Your task to perform on an android device: turn off location Image 0: 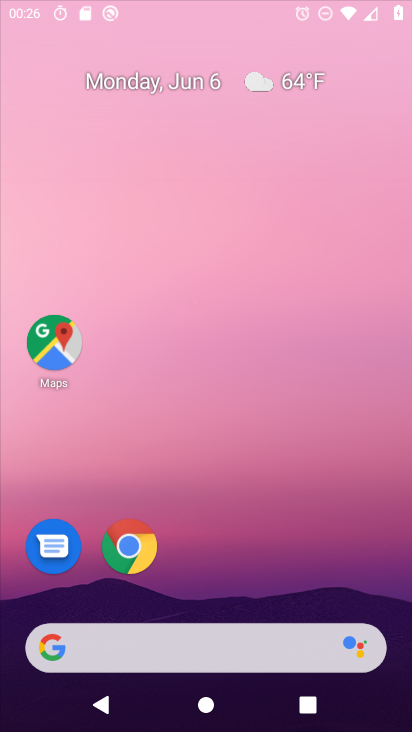
Step 0: drag from (211, 584) to (230, 149)
Your task to perform on an android device: turn off location Image 1: 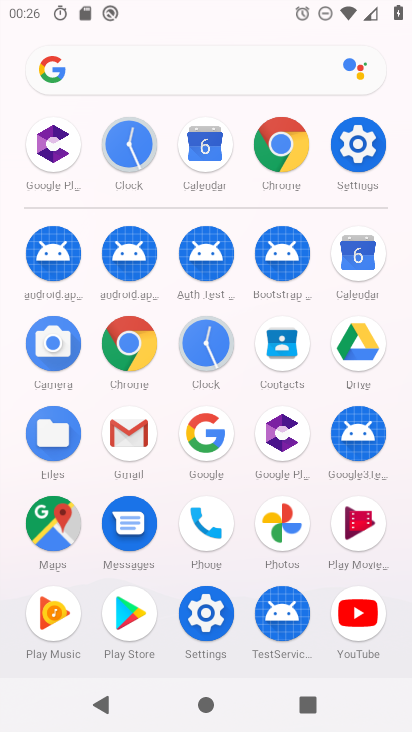
Step 1: click (363, 144)
Your task to perform on an android device: turn off location Image 2: 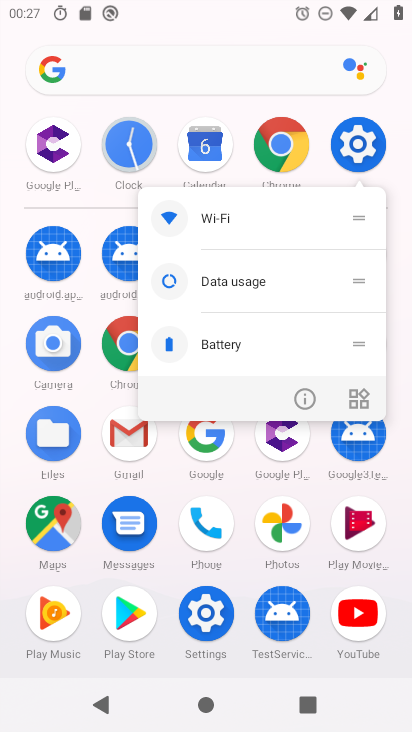
Step 2: click (309, 397)
Your task to perform on an android device: turn off location Image 3: 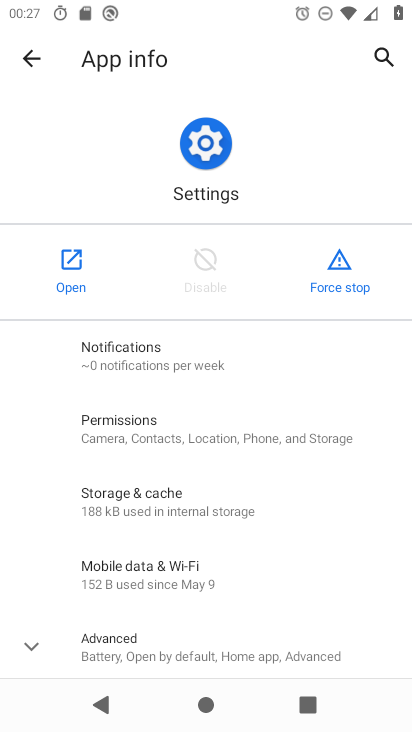
Step 3: click (71, 253)
Your task to perform on an android device: turn off location Image 4: 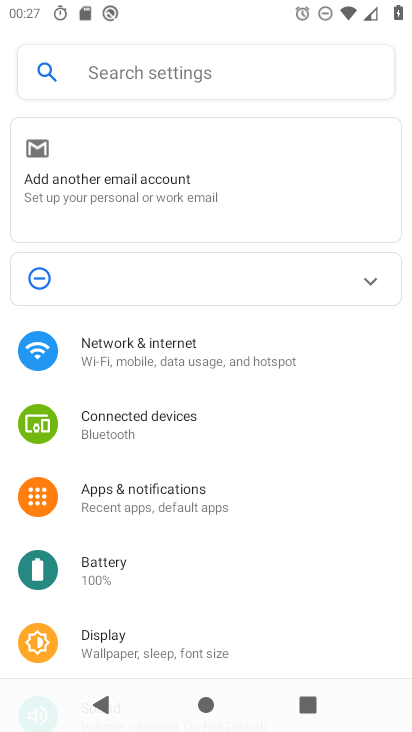
Step 4: drag from (231, 584) to (273, 83)
Your task to perform on an android device: turn off location Image 5: 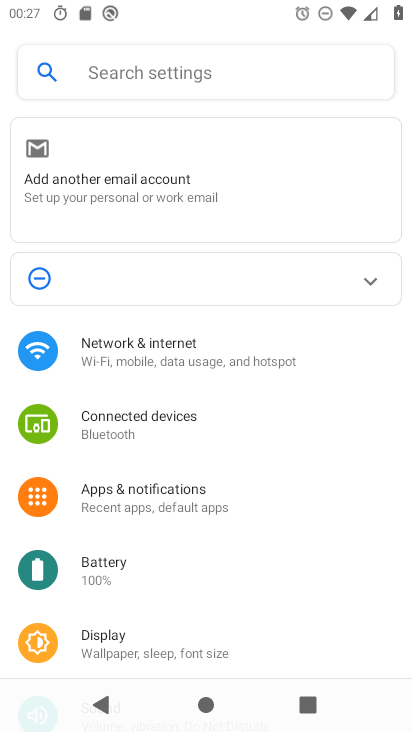
Step 5: drag from (149, 518) to (309, 121)
Your task to perform on an android device: turn off location Image 6: 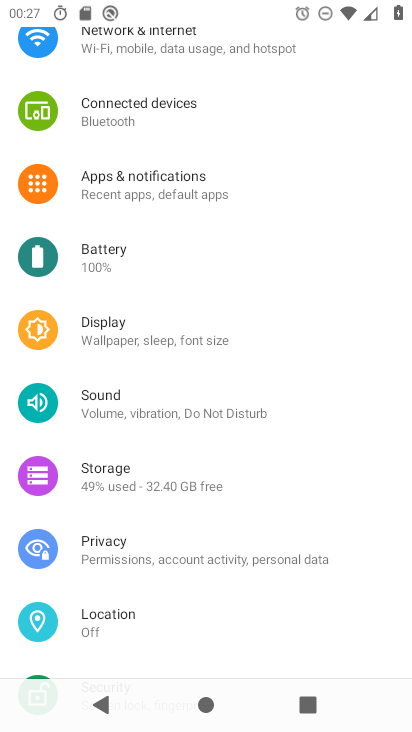
Step 6: click (143, 633)
Your task to perform on an android device: turn off location Image 7: 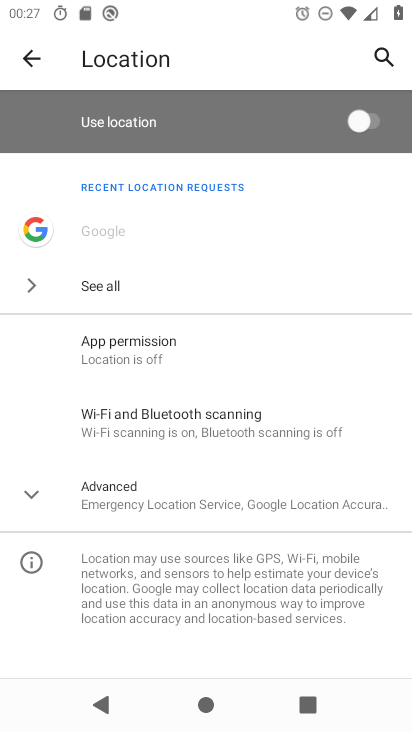
Step 7: task complete